Your task to perform on an android device: Find coffee shops on Maps Image 0: 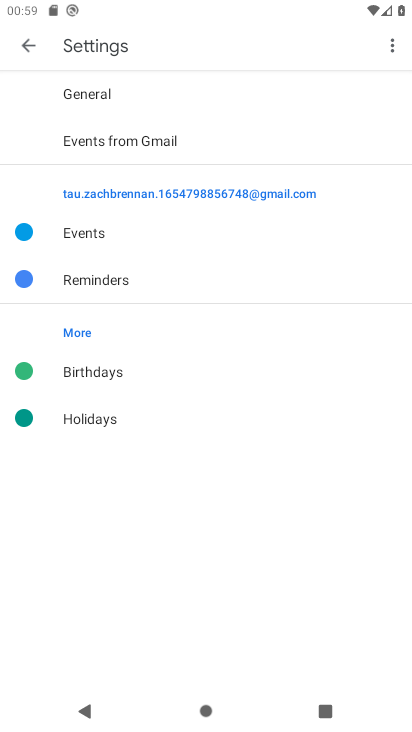
Step 0: press home button
Your task to perform on an android device: Find coffee shops on Maps Image 1: 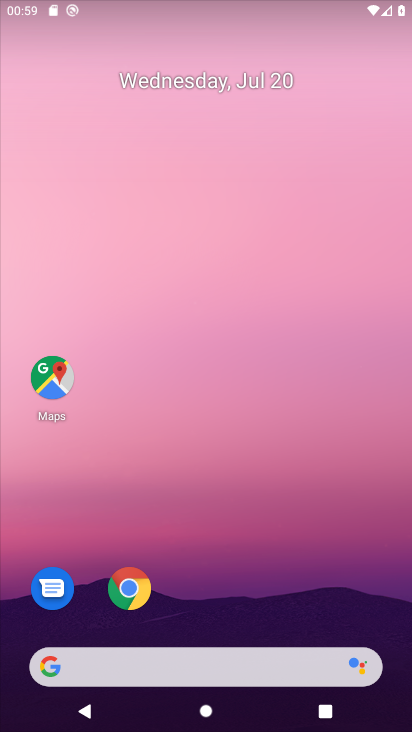
Step 1: drag from (224, 425) to (214, 304)
Your task to perform on an android device: Find coffee shops on Maps Image 2: 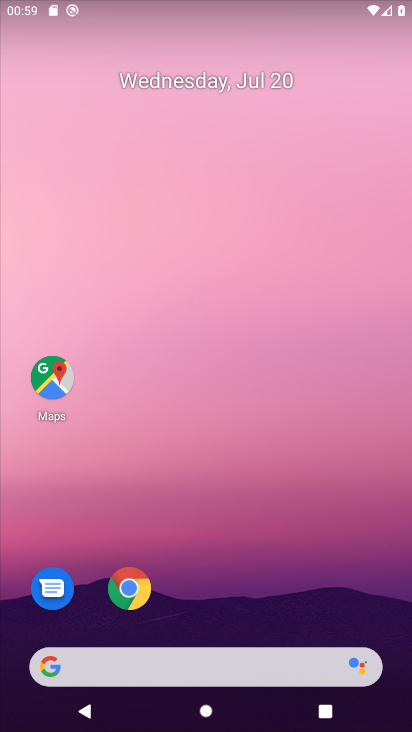
Step 2: click (44, 376)
Your task to perform on an android device: Find coffee shops on Maps Image 3: 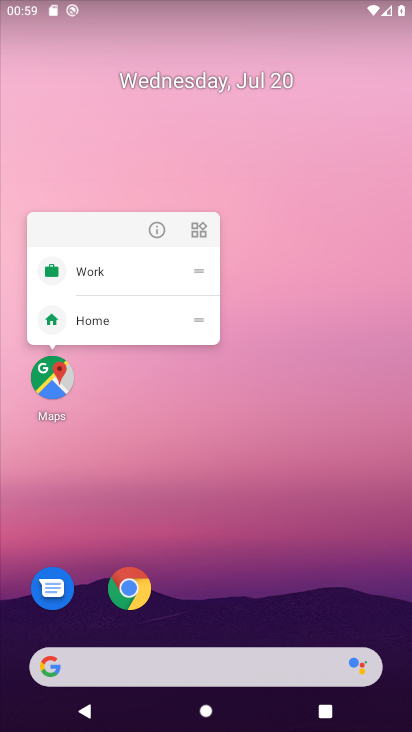
Step 3: click (49, 366)
Your task to perform on an android device: Find coffee shops on Maps Image 4: 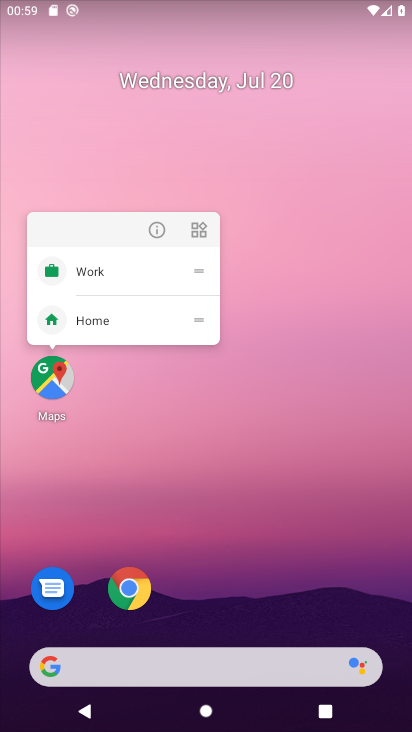
Step 4: click (38, 371)
Your task to perform on an android device: Find coffee shops on Maps Image 5: 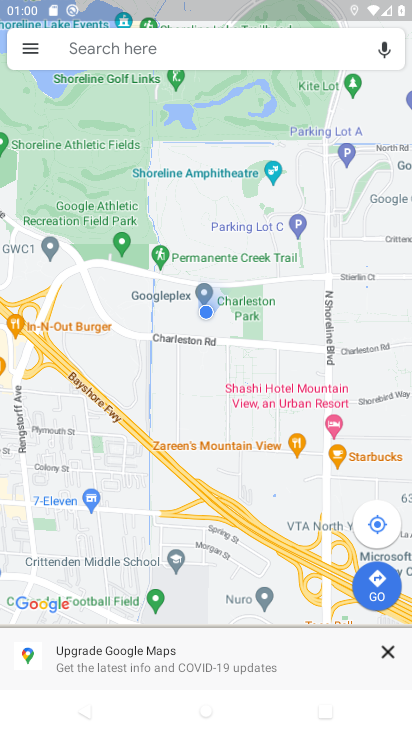
Step 5: click (115, 40)
Your task to perform on an android device: Find coffee shops on Maps Image 6: 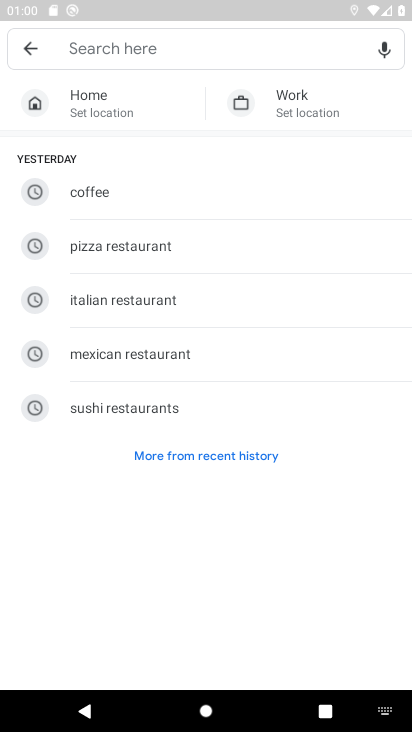
Step 6: click (124, 180)
Your task to perform on an android device: Find coffee shops on Maps Image 7: 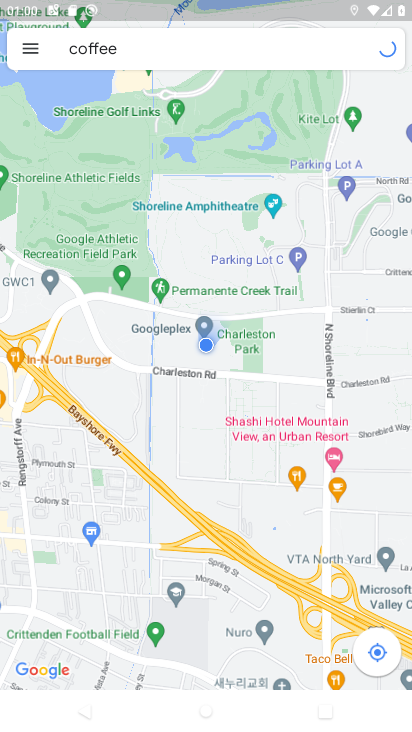
Step 7: task complete